Your task to perform on an android device: add a contact Image 0: 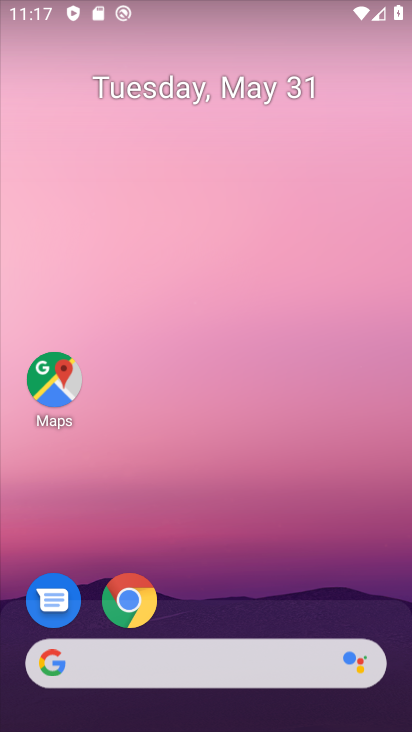
Step 0: drag from (298, 605) to (308, 112)
Your task to perform on an android device: add a contact Image 1: 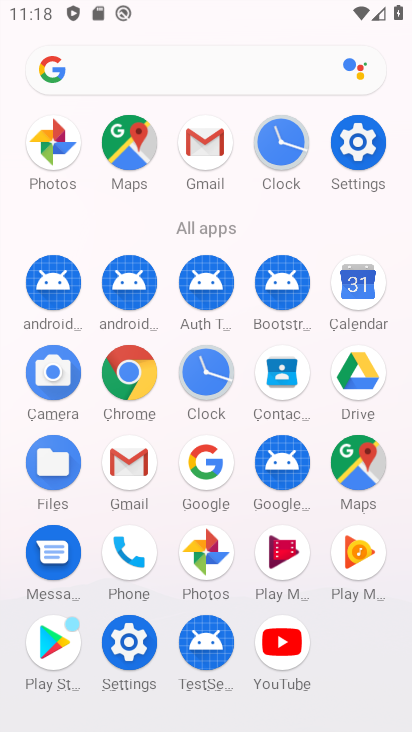
Step 1: click (269, 388)
Your task to perform on an android device: add a contact Image 2: 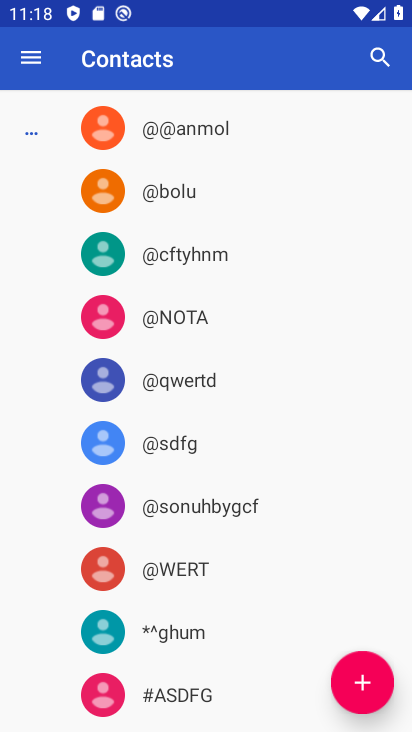
Step 2: click (370, 679)
Your task to perform on an android device: add a contact Image 3: 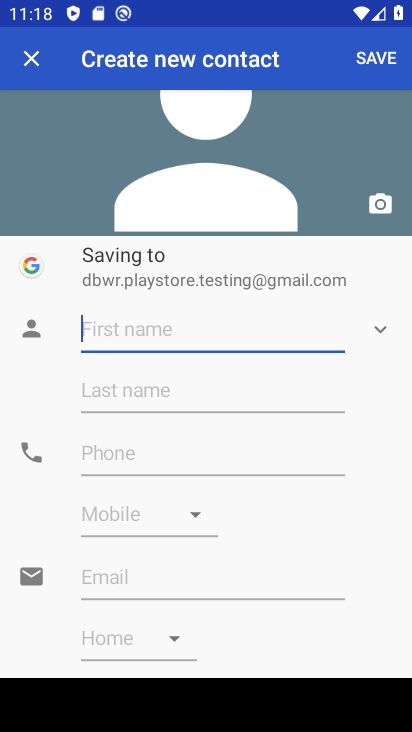
Step 3: click (206, 334)
Your task to perform on an android device: add a contact Image 4: 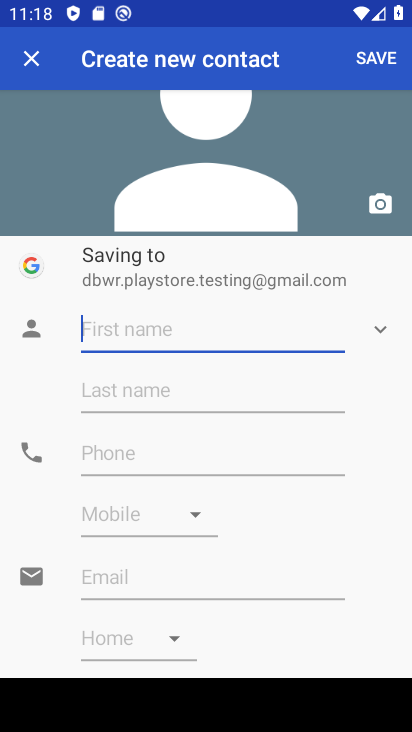
Step 4: type "my luv"
Your task to perform on an android device: add a contact Image 5: 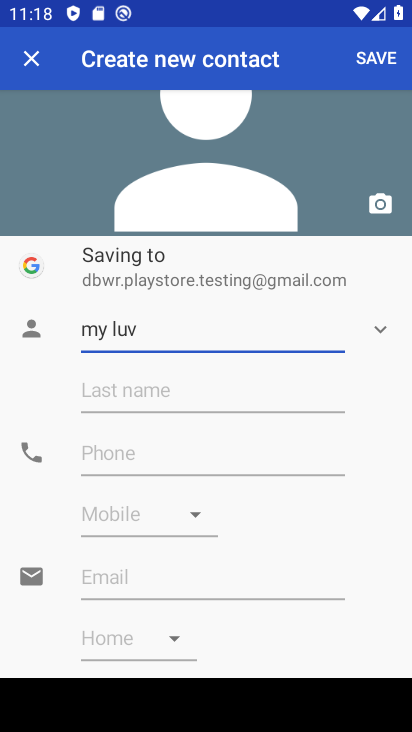
Step 5: click (175, 470)
Your task to perform on an android device: add a contact Image 6: 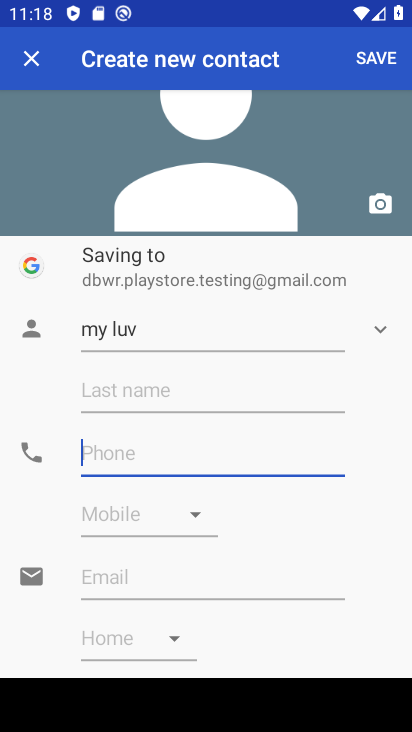
Step 6: type "123456789"
Your task to perform on an android device: add a contact Image 7: 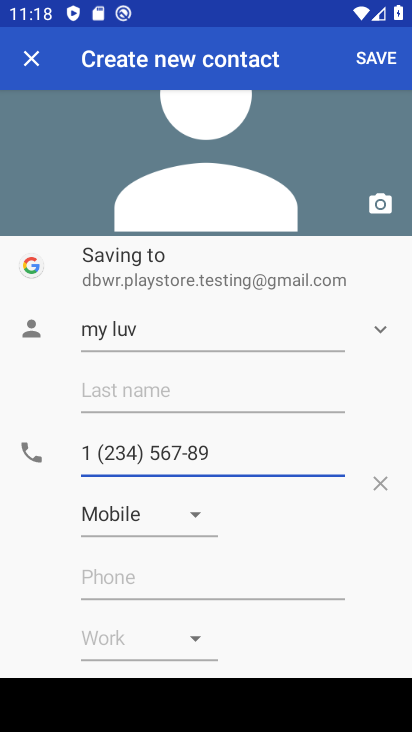
Step 7: click (384, 52)
Your task to perform on an android device: add a contact Image 8: 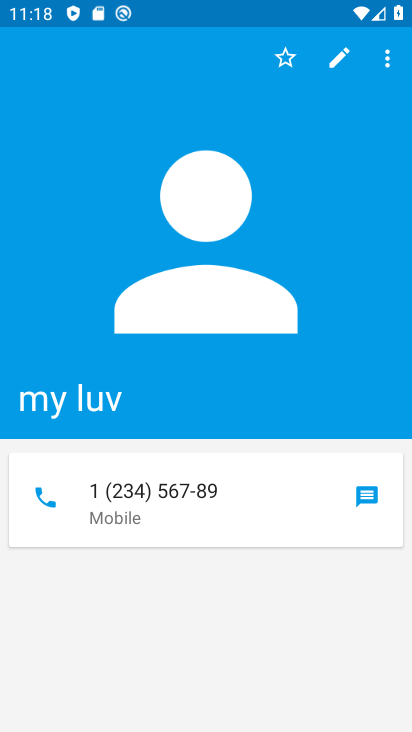
Step 8: task complete